Your task to perform on an android device: Go to battery settings Image 0: 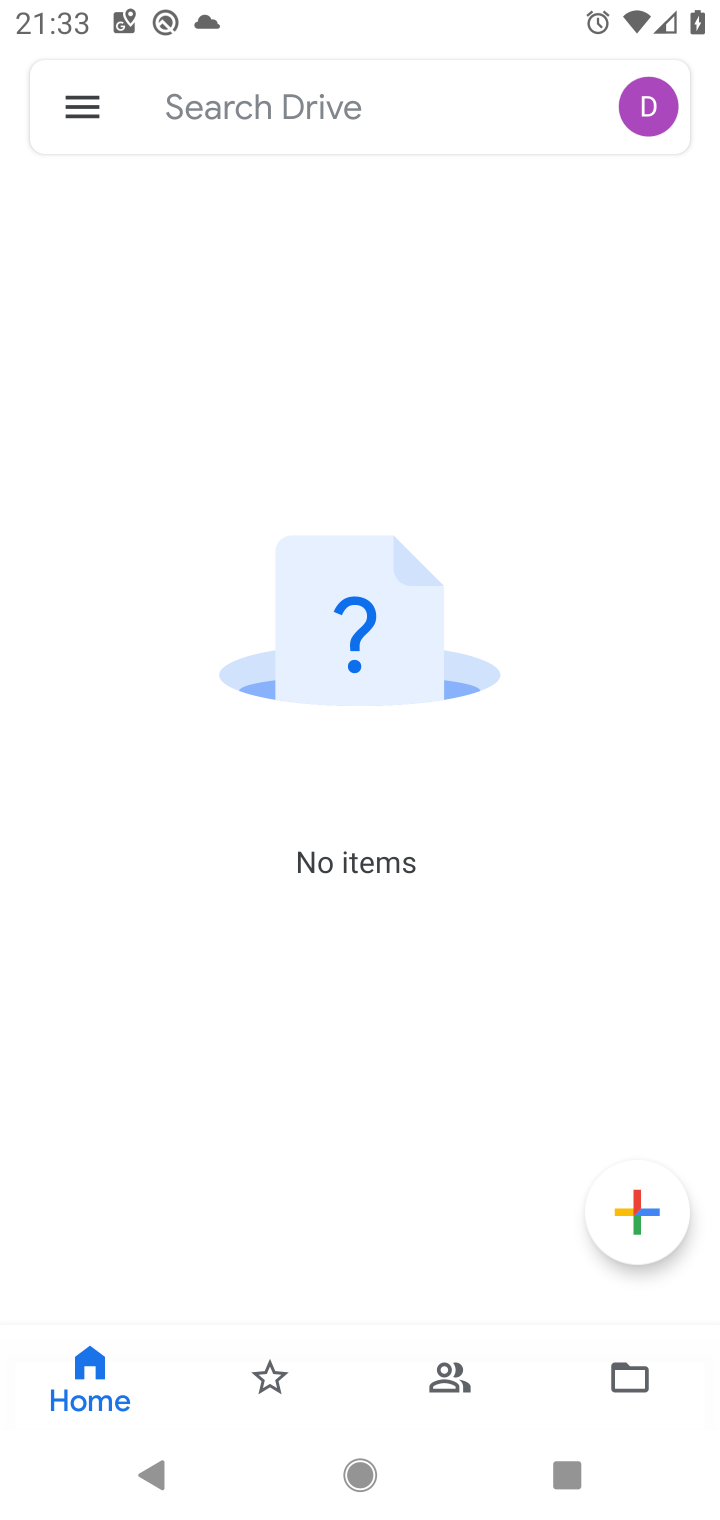
Step 0: press home button
Your task to perform on an android device: Go to battery settings Image 1: 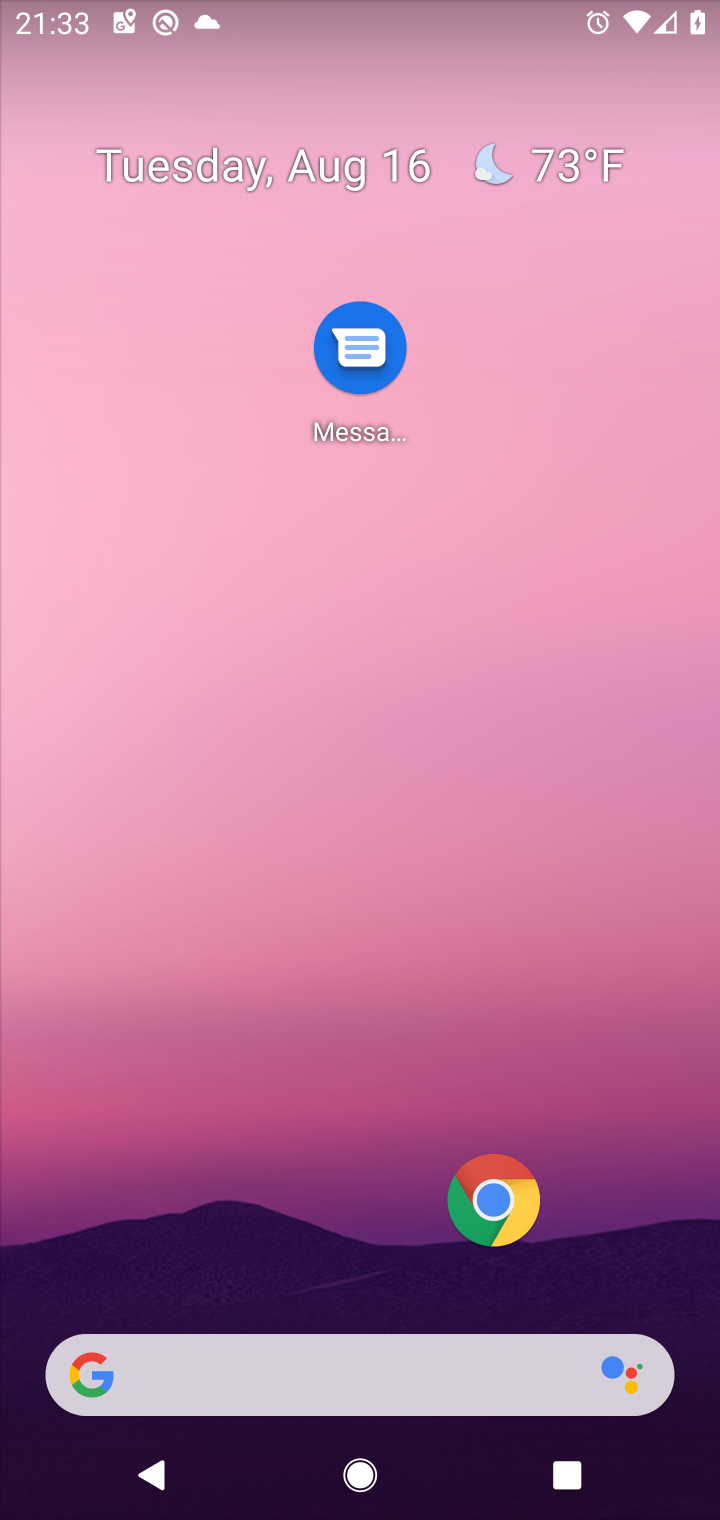
Step 1: drag from (68, 1490) to (408, 519)
Your task to perform on an android device: Go to battery settings Image 2: 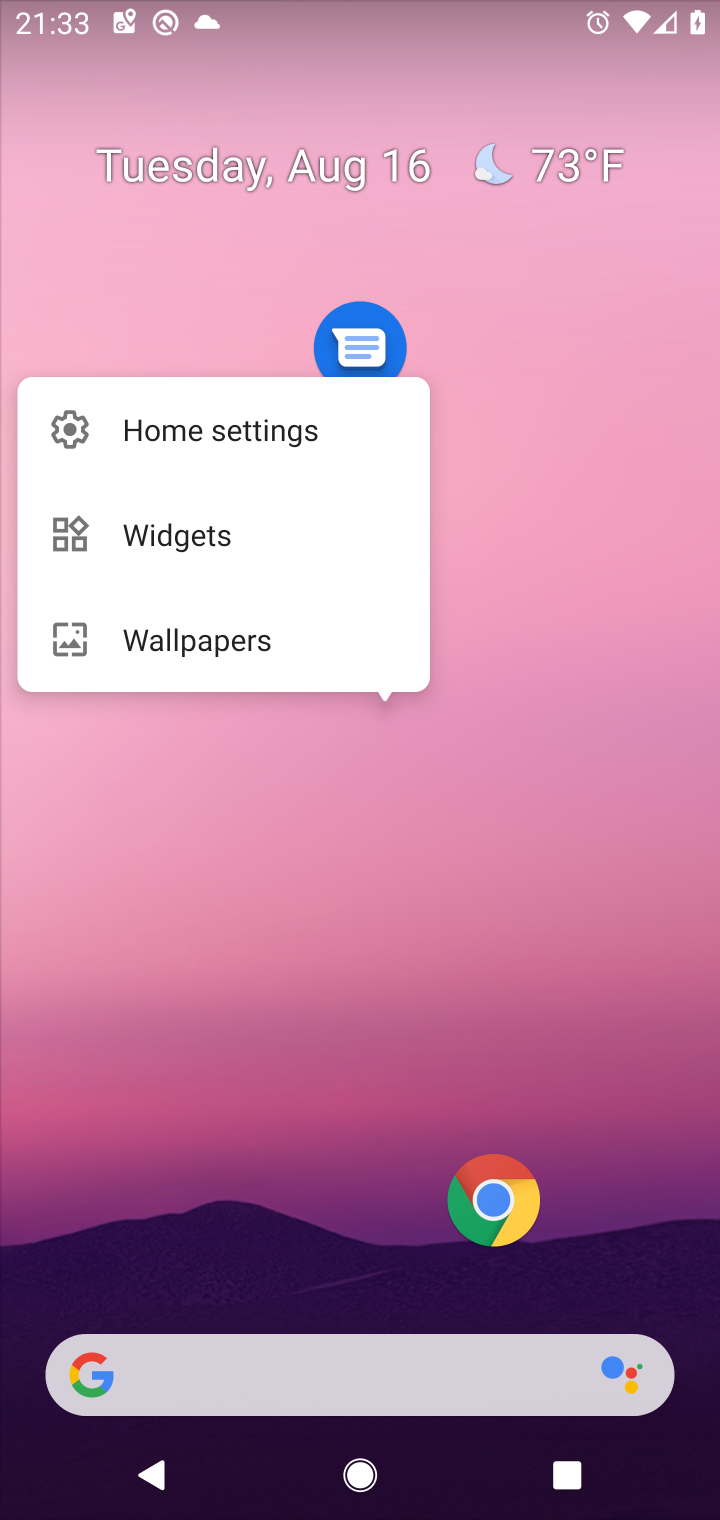
Step 2: drag from (52, 1428) to (463, 559)
Your task to perform on an android device: Go to battery settings Image 3: 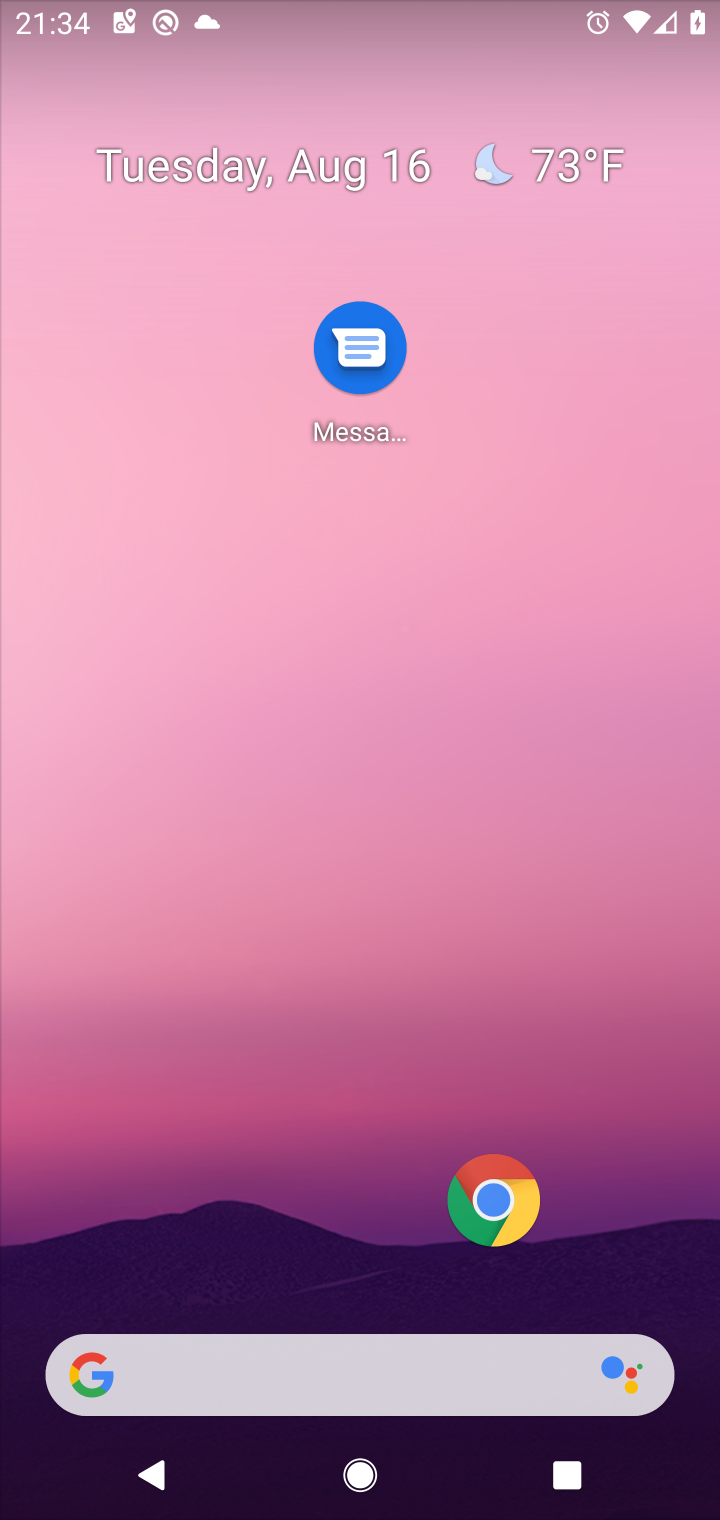
Step 3: drag from (90, 1455) to (230, 474)
Your task to perform on an android device: Go to battery settings Image 4: 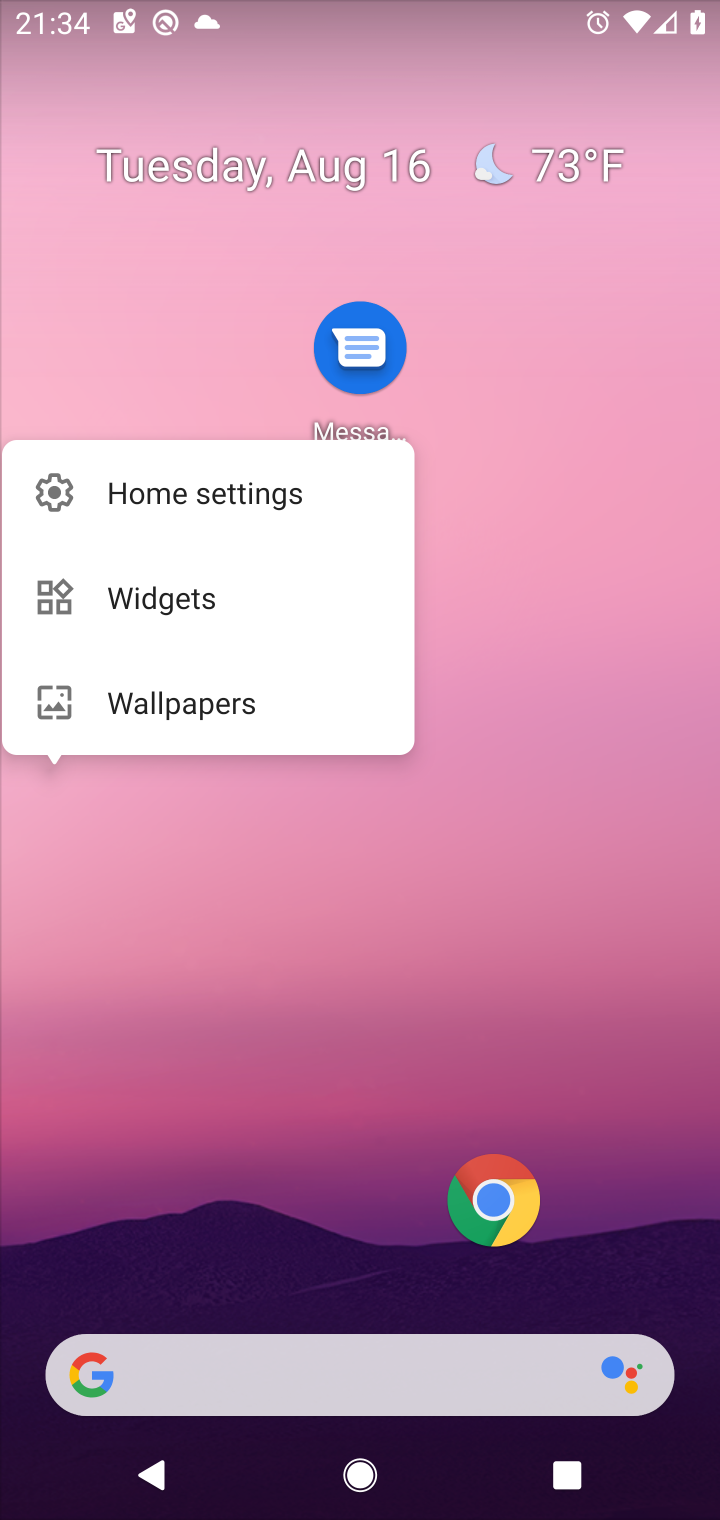
Step 4: drag from (67, 1447) to (359, 792)
Your task to perform on an android device: Go to battery settings Image 5: 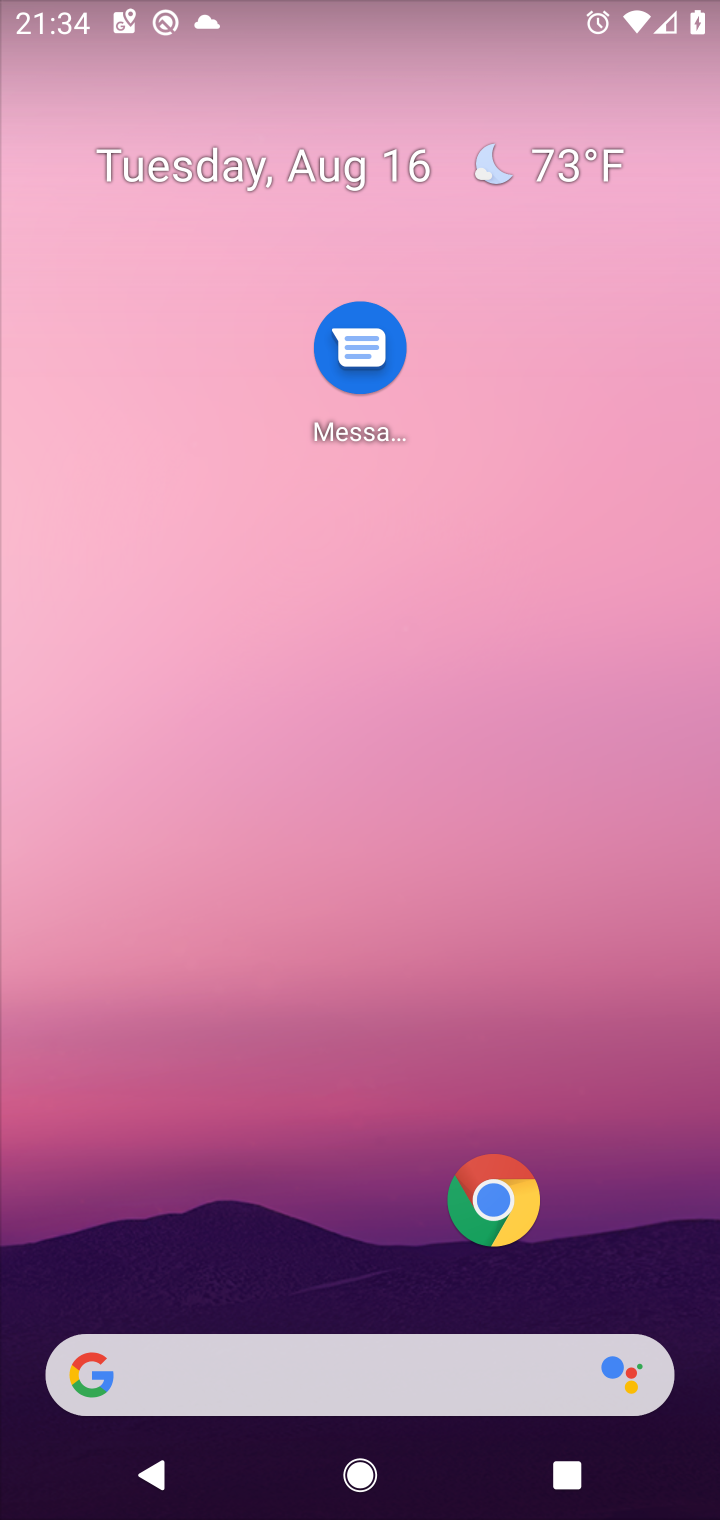
Step 5: drag from (142, 1357) to (470, 545)
Your task to perform on an android device: Go to battery settings Image 6: 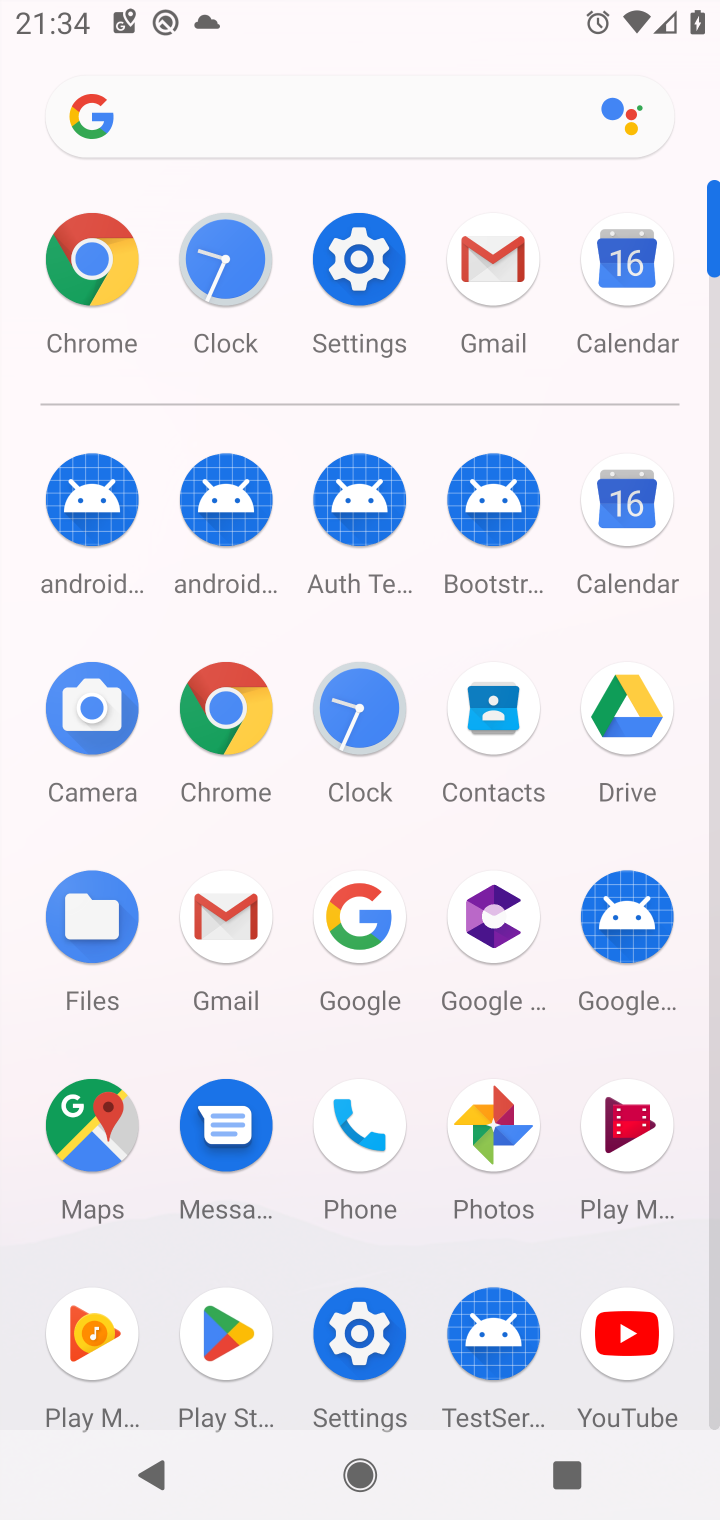
Step 6: click (362, 264)
Your task to perform on an android device: Go to battery settings Image 7: 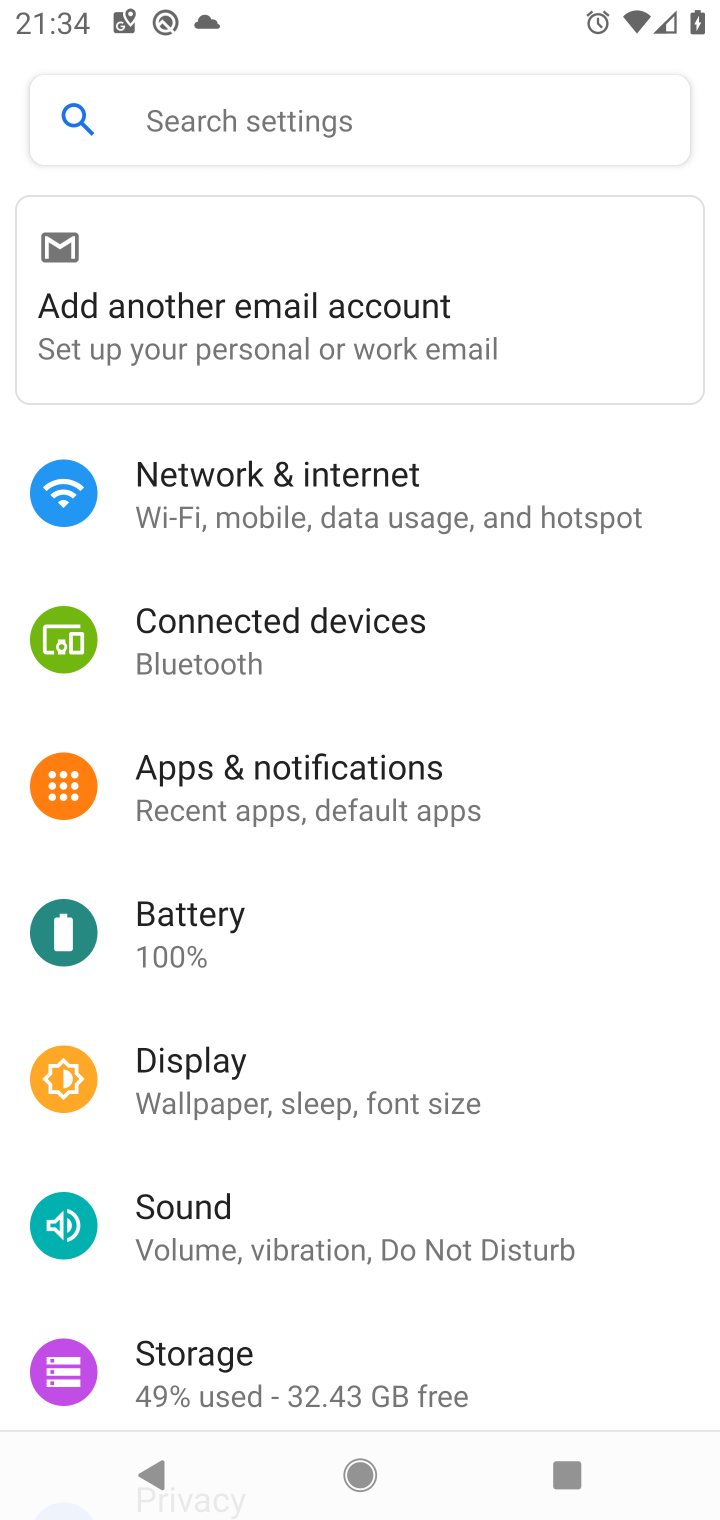
Step 7: click (203, 933)
Your task to perform on an android device: Go to battery settings Image 8: 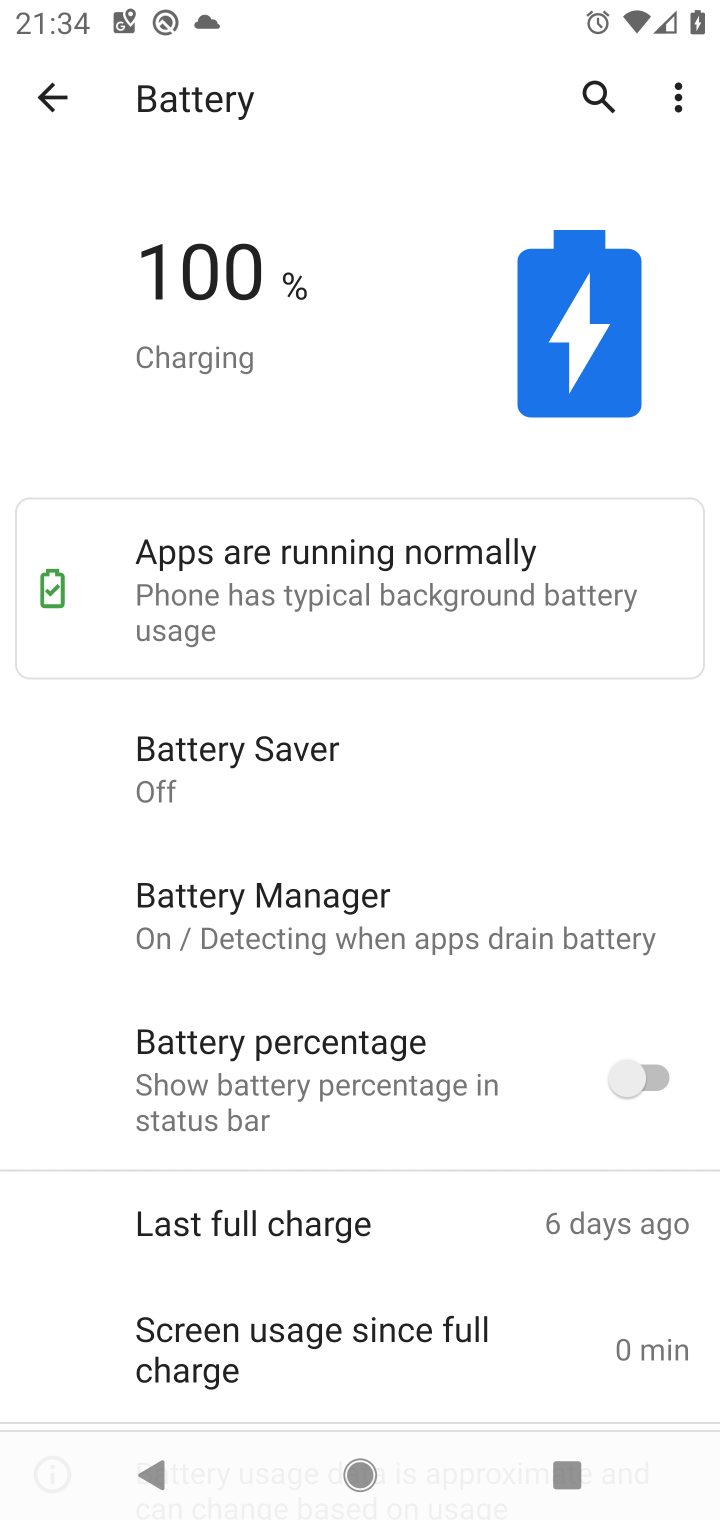
Step 8: task complete